Your task to perform on an android device: When is my next meeting? Image 0: 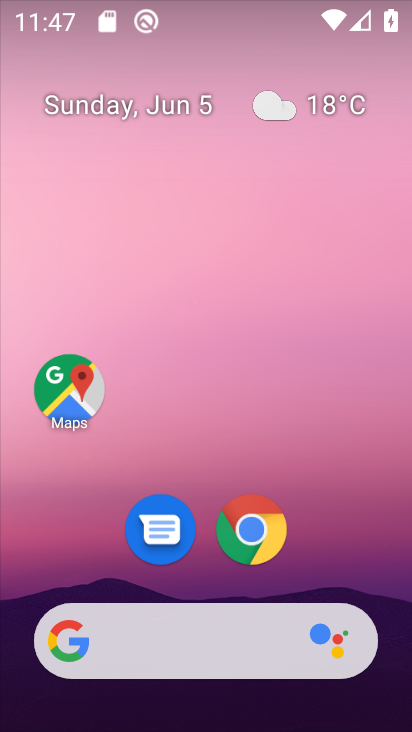
Step 0: drag from (361, 549) to (301, 2)
Your task to perform on an android device: When is my next meeting? Image 1: 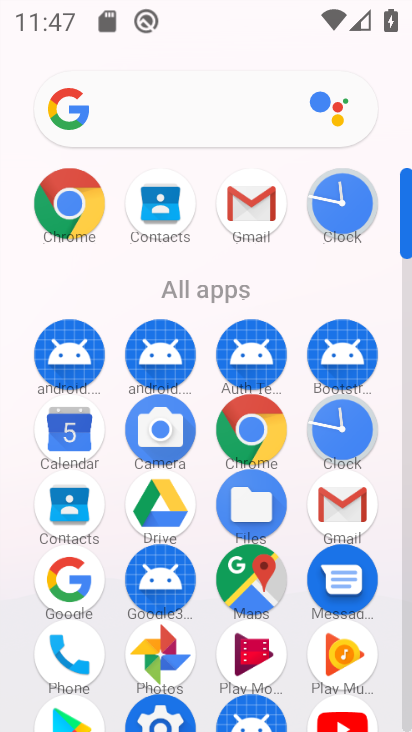
Step 1: click (64, 435)
Your task to perform on an android device: When is my next meeting? Image 2: 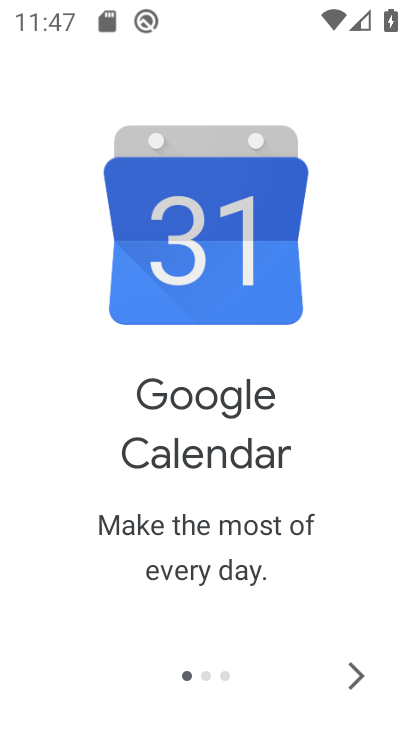
Step 2: click (373, 662)
Your task to perform on an android device: When is my next meeting? Image 3: 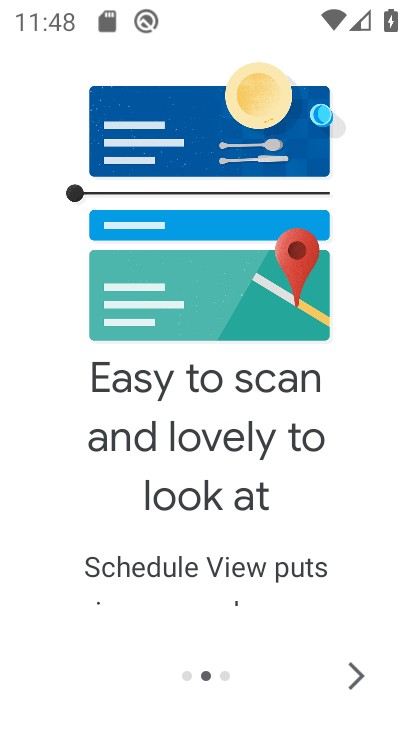
Step 3: click (370, 666)
Your task to perform on an android device: When is my next meeting? Image 4: 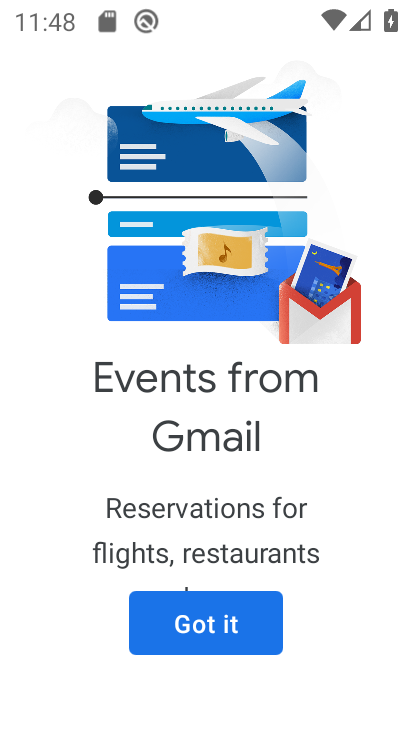
Step 4: click (369, 665)
Your task to perform on an android device: When is my next meeting? Image 5: 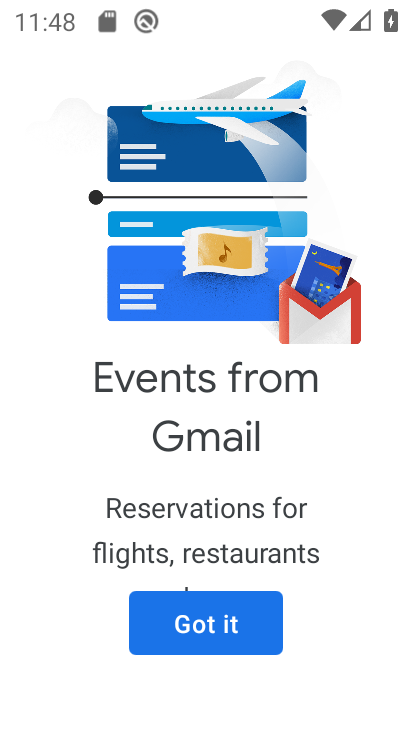
Step 5: click (237, 618)
Your task to perform on an android device: When is my next meeting? Image 6: 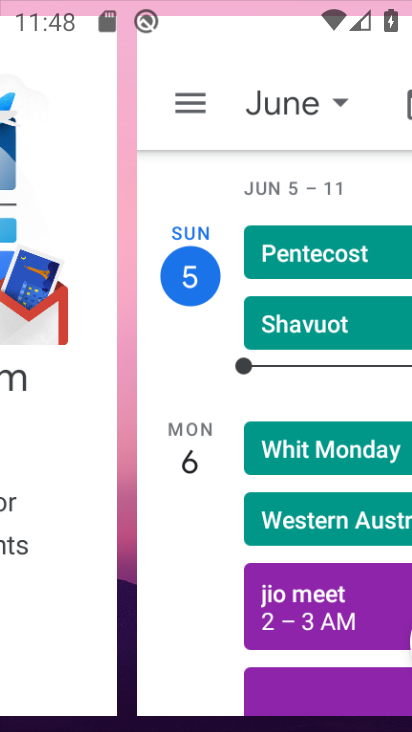
Step 6: click (237, 618)
Your task to perform on an android device: When is my next meeting? Image 7: 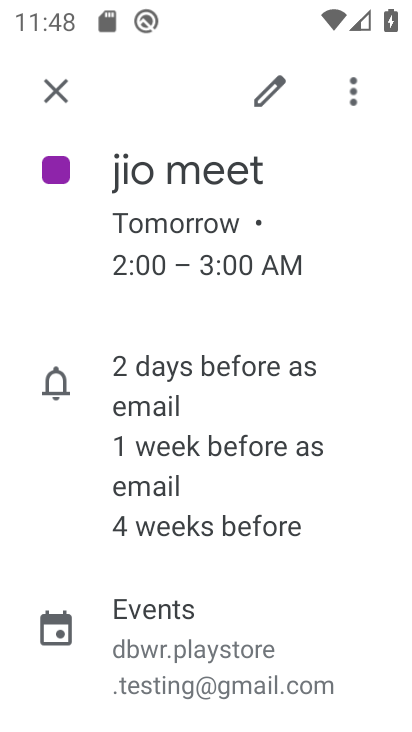
Step 7: click (43, 92)
Your task to perform on an android device: When is my next meeting? Image 8: 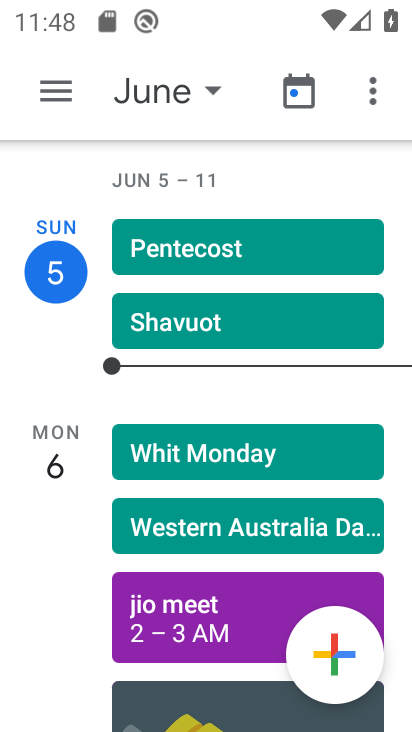
Step 8: task complete